Your task to perform on an android device: Go to Maps Image 0: 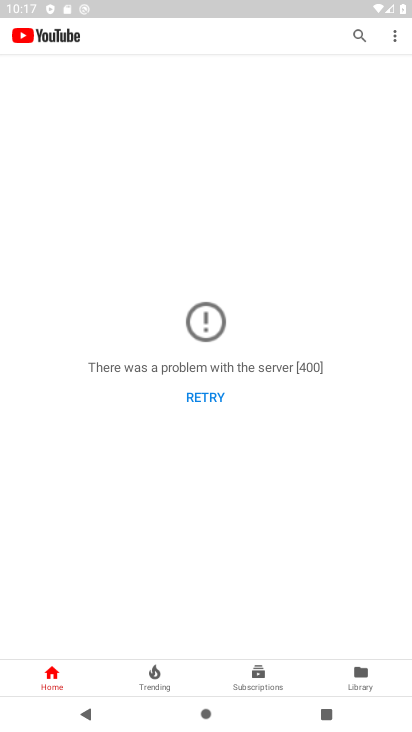
Step 0: press home button
Your task to perform on an android device: Go to Maps Image 1: 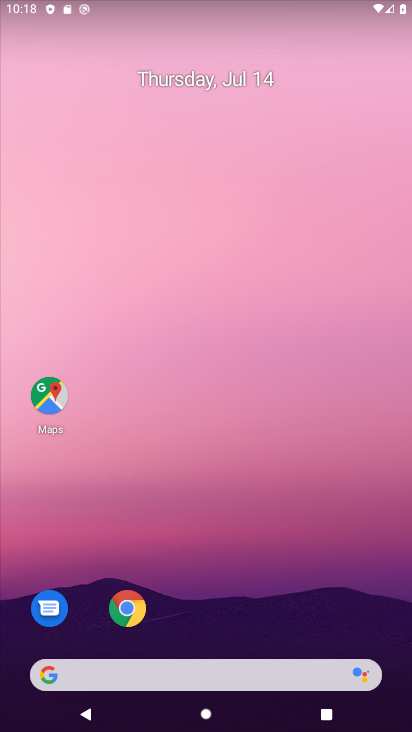
Step 1: click (50, 405)
Your task to perform on an android device: Go to Maps Image 2: 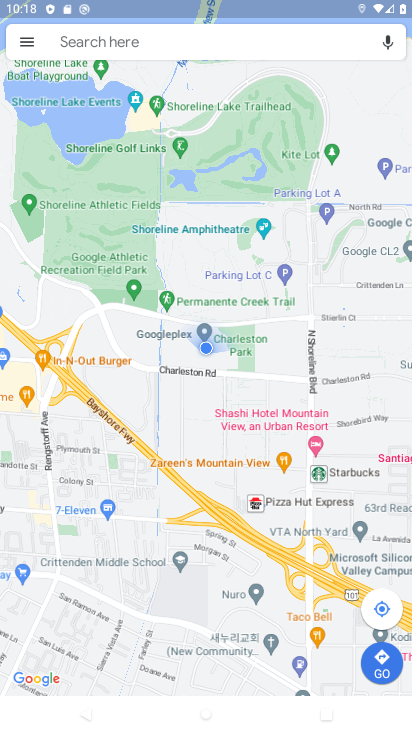
Step 2: task complete